Your task to perform on an android device: turn pop-ups off in chrome Image 0: 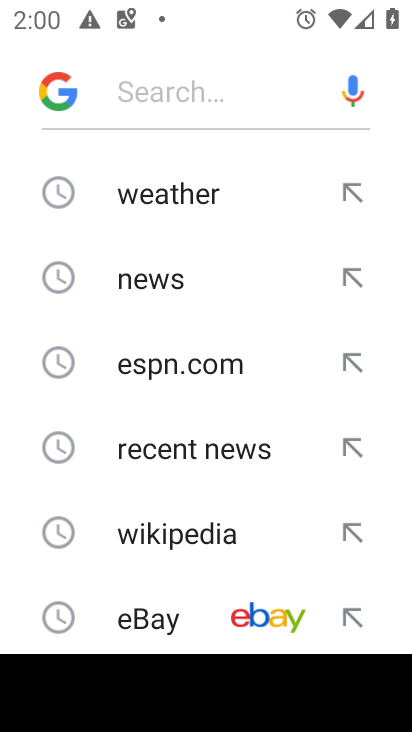
Step 0: press home button
Your task to perform on an android device: turn pop-ups off in chrome Image 1: 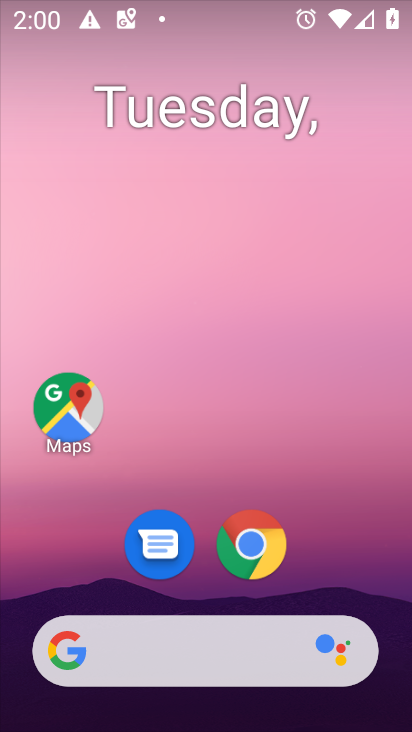
Step 1: drag from (315, 287) to (276, 8)
Your task to perform on an android device: turn pop-ups off in chrome Image 2: 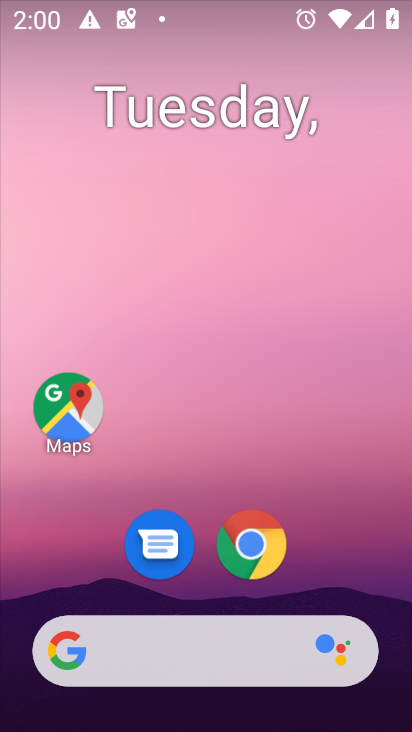
Step 2: drag from (313, 440) to (269, 98)
Your task to perform on an android device: turn pop-ups off in chrome Image 3: 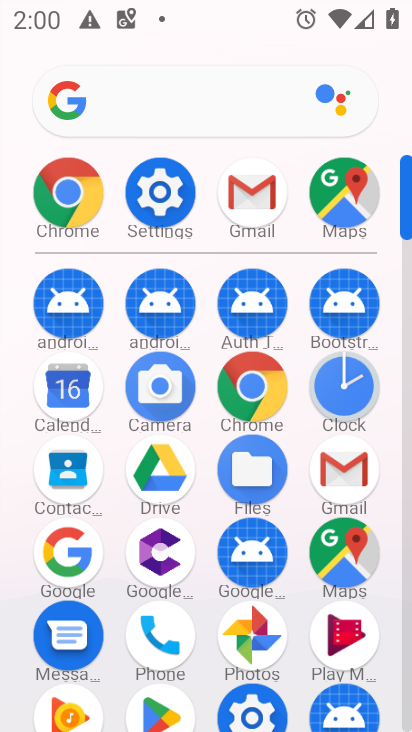
Step 3: click (256, 388)
Your task to perform on an android device: turn pop-ups off in chrome Image 4: 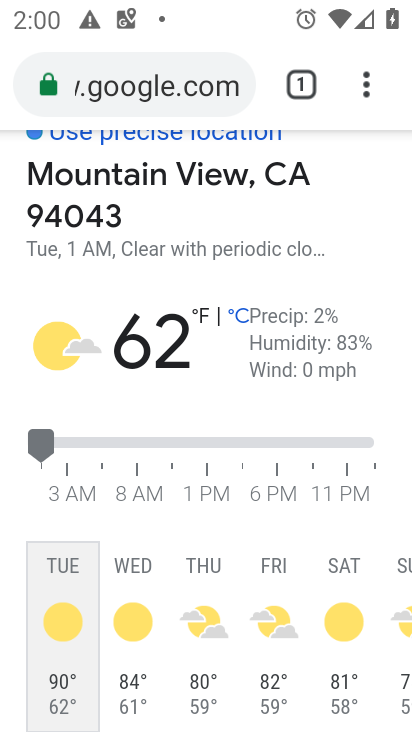
Step 4: drag from (361, 87) to (175, 603)
Your task to perform on an android device: turn pop-ups off in chrome Image 5: 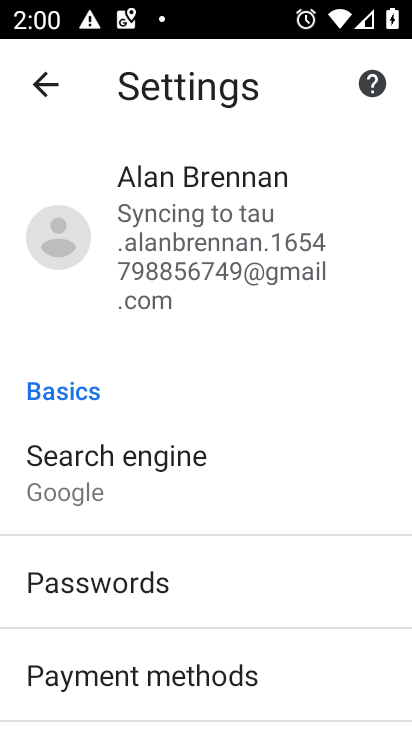
Step 5: drag from (258, 593) to (261, 81)
Your task to perform on an android device: turn pop-ups off in chrome Image 6: 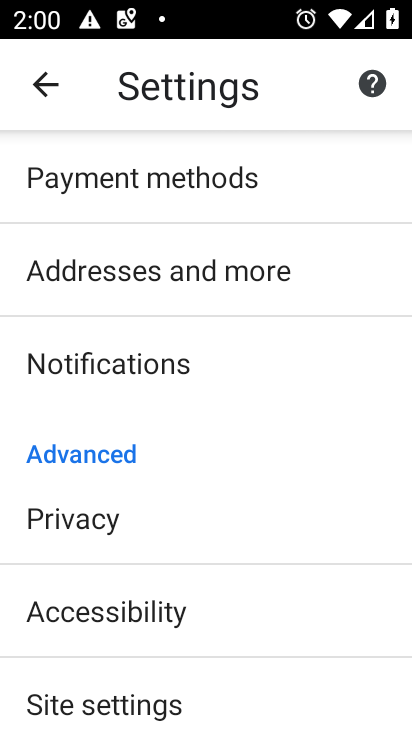
Step 6: drag from (282, 583) to (297, 201)
Your task to perform on an android device: turn pop-ups off in chrome Image 7: 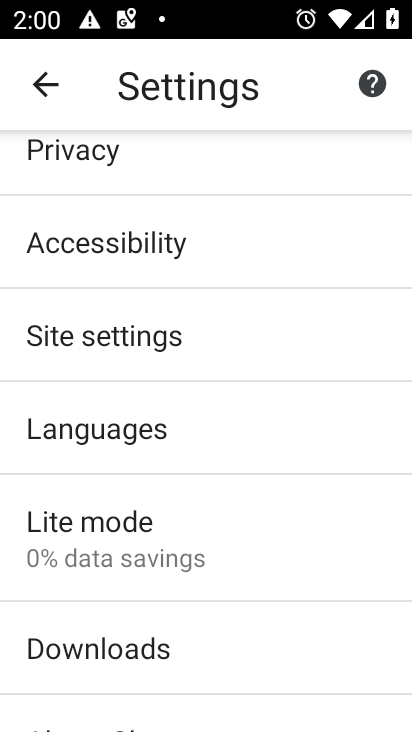
Step 7: click (147, 345)
Your task to perform on an android device: turn pop-ups off in chrome Image 8: 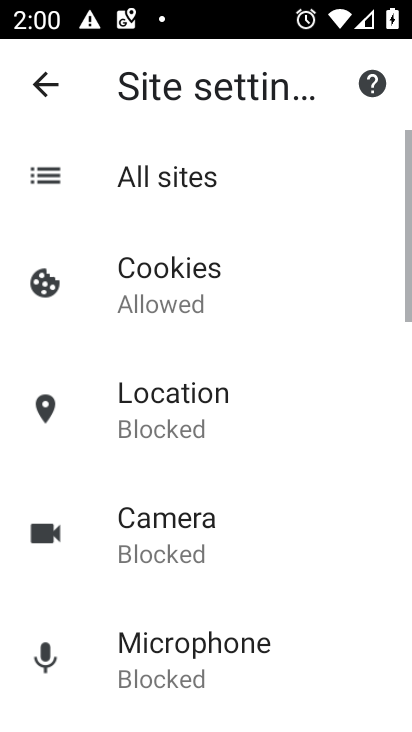
Step 8: drag from (314, 543) to (312, 127)
Your task to perform on an android device: turn pop-ups off in chrome Image 9: 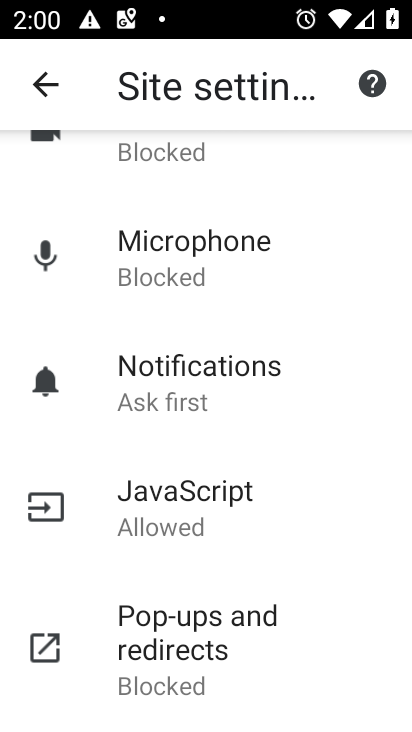
Step 9: click (200, 610)
Your task to perform on an android device: turn pop-ups off in chrome Image 10: 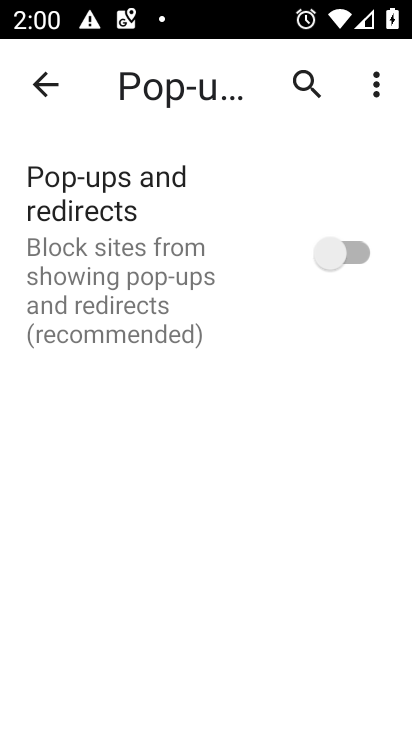
Step 10: task complete